Your task to perform on an android device: What is the news today? Image 0: 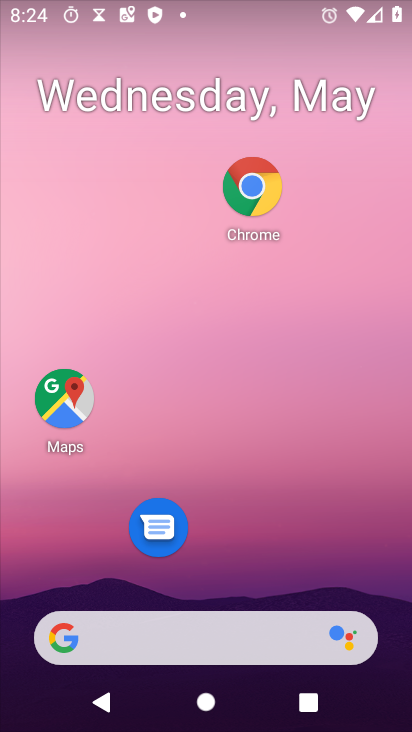
Step 0: click (255, 194)
Your task to perform on an android device: What is the news today? Image 1: 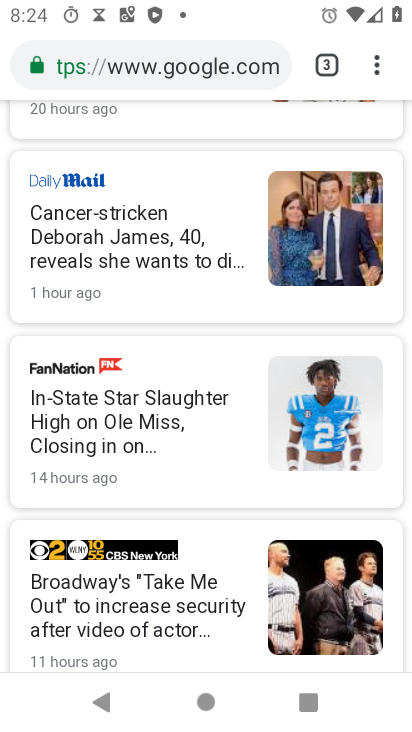
Step 1: drag from (358, 123) to (376, 69)
Your task to perform on an android device: What is the news today? Image 2: 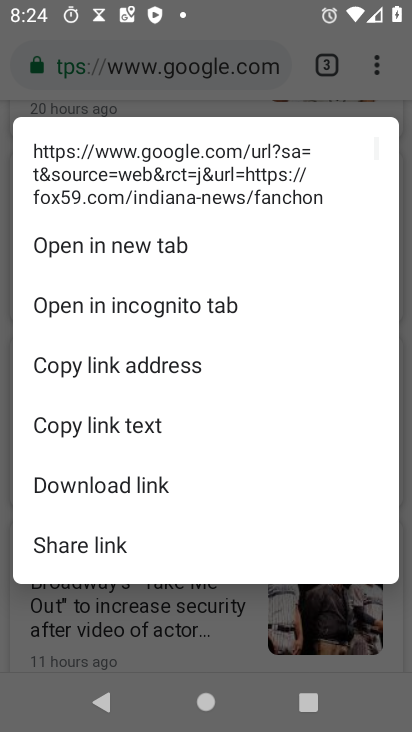
Step 2: click (376, 69)
Your task to perform on an android device: What is the news today? Image 3: 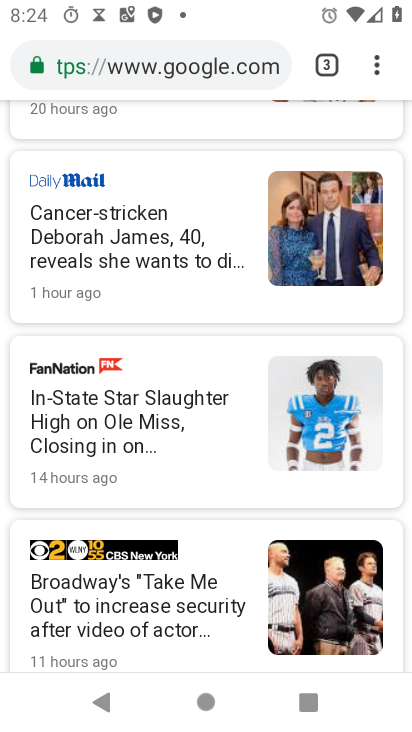
Step 3: drag from (376, 69) to (172, 133)
Your task to perform on an android device: What is the news today? Image 4: 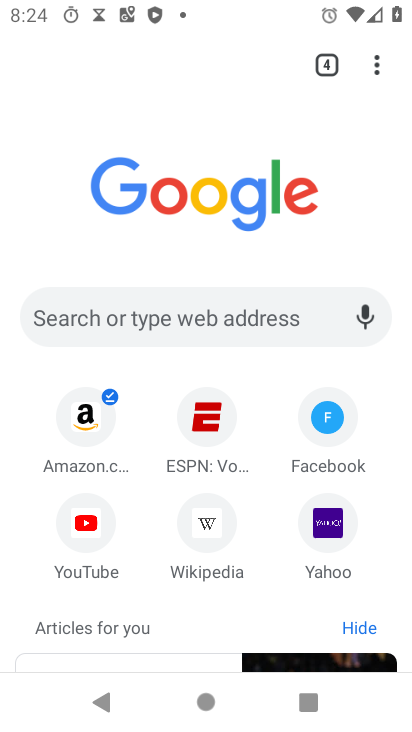
Step 4: click (195, 318)
Your task to perform on an android device: What is the news today? Image 5: 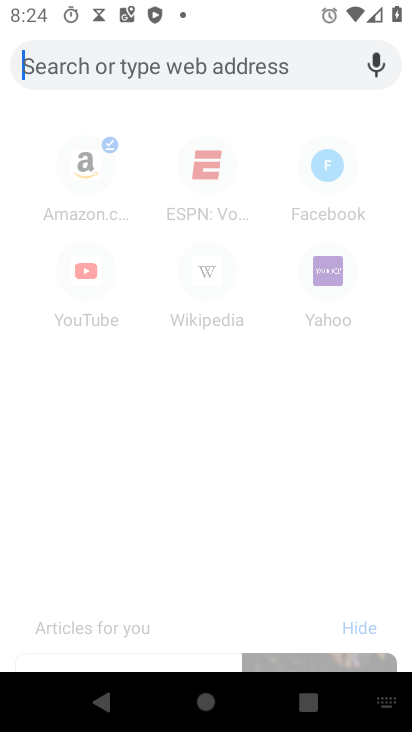
Step 5: type "What is the news today?"
Your task to perform on an android device: What is the news today? Image 6: 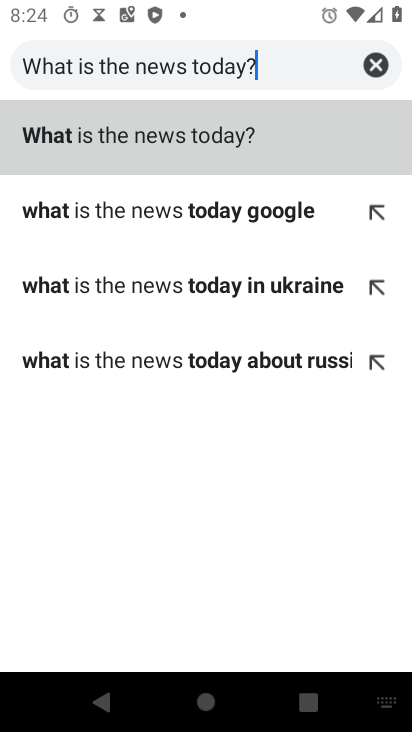
Step 6: click (83, 125)
Your task to perform on an android device: What is the news today? Image 7: 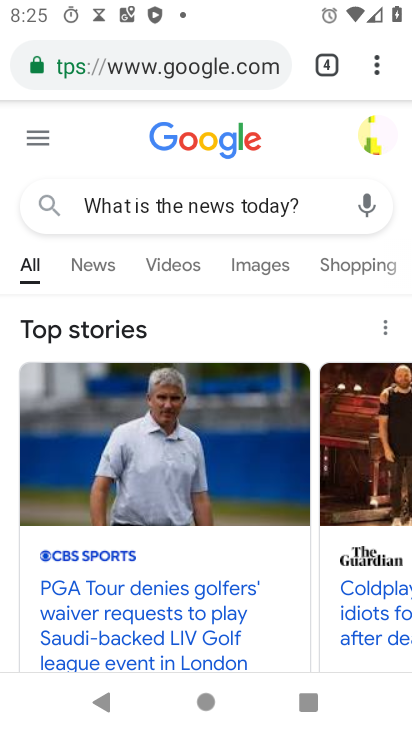
Step 7: click (93, 266)
Your task to perform on an android device: What is the news today? Image 8: 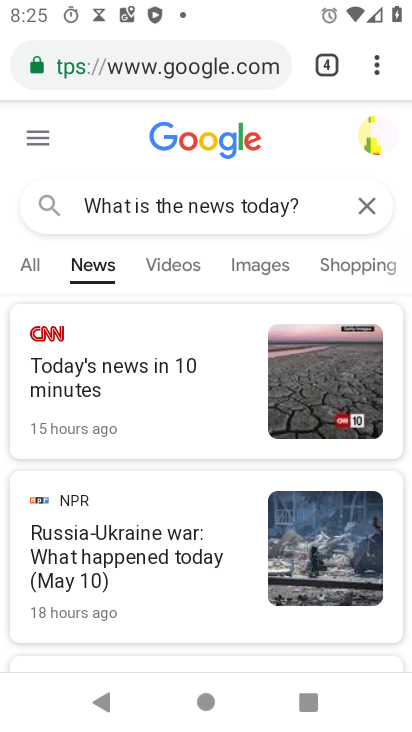
Step 8: task complete